Your task to perform on an android device: Set the phone to "Do not disturb". Image 0: 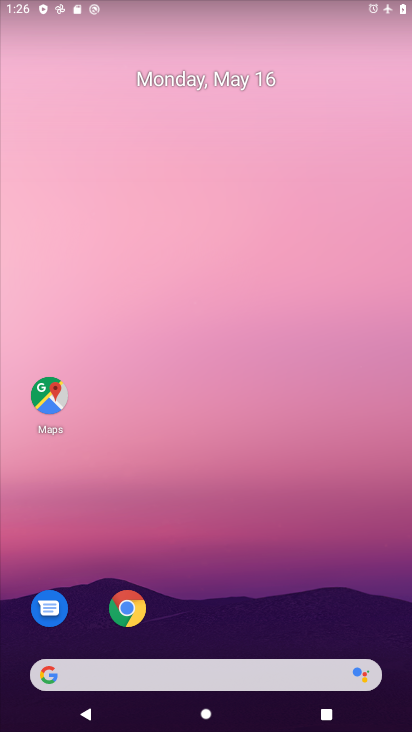
Step 0: drag from (268, 542) to (299, 71)
Your task to perform on an android device: Set the phone to "Do not disturb". Image 1: 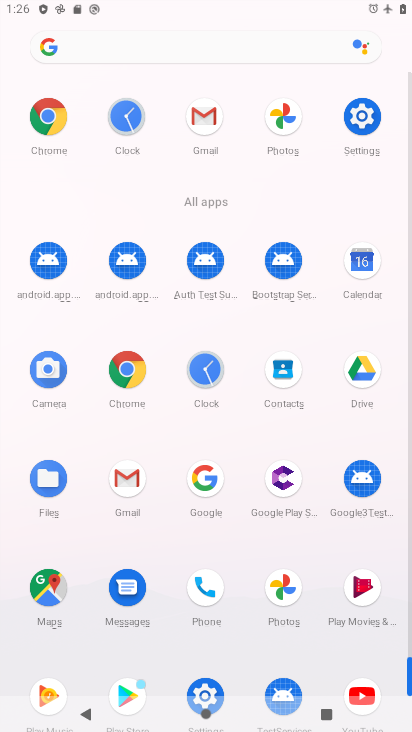
Step 1: click (367, 119)
Your task to perform on an android device: Set the phone to "Do not disturb". Image 2: 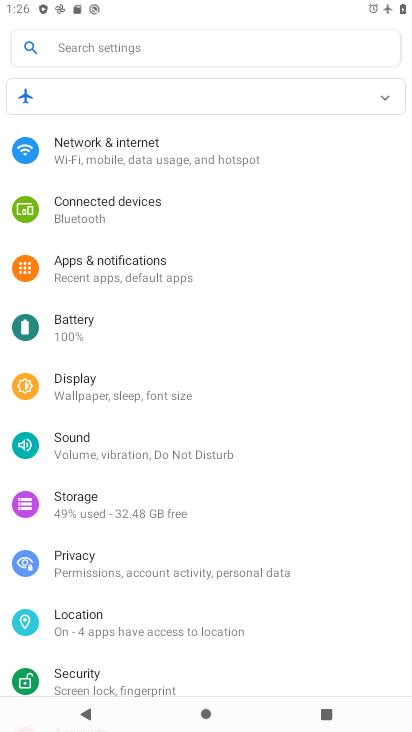
Step 2: click (222, 461)
Your task to perform on an android device: Set the phone to "Do not disturb". Image 3: 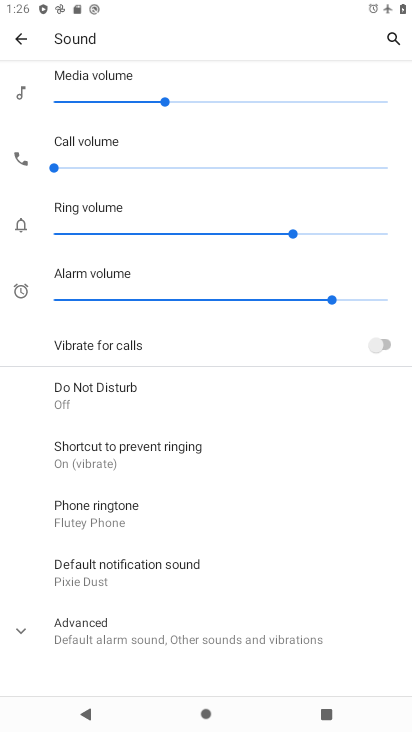
Step 3: click (217, 404)
Your task to perform on an android device: Set the phone to "Do not disturb". Image 4: 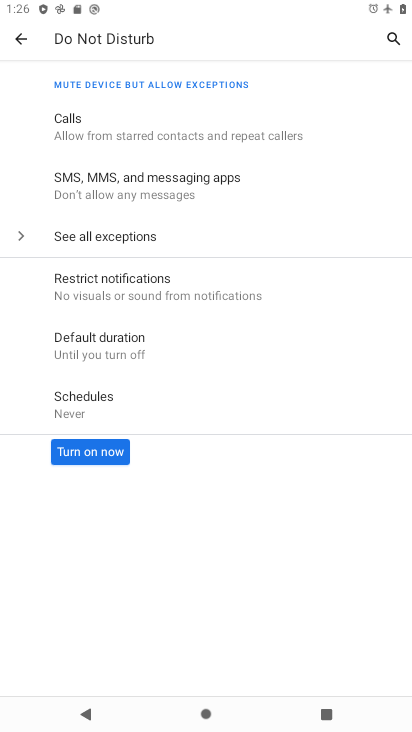
Step 4: click (116, 448)
Your task to perform on an android device: Set the phone to "Do not disturb". Image 5: 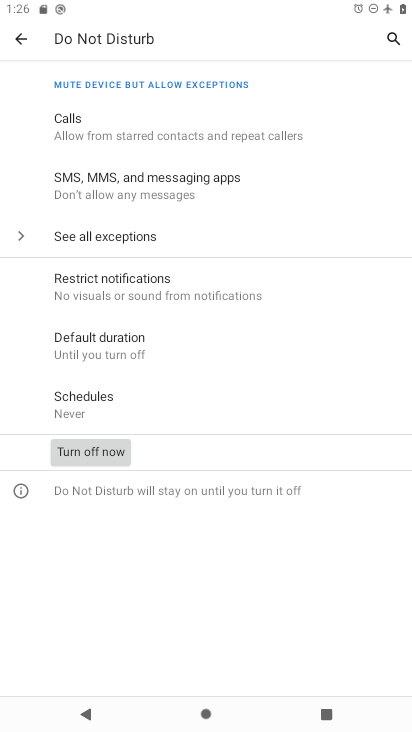
Step 5: task complete